Your task to perform on an android device: read, delete, or share a saved page in the chrome app Image 0: 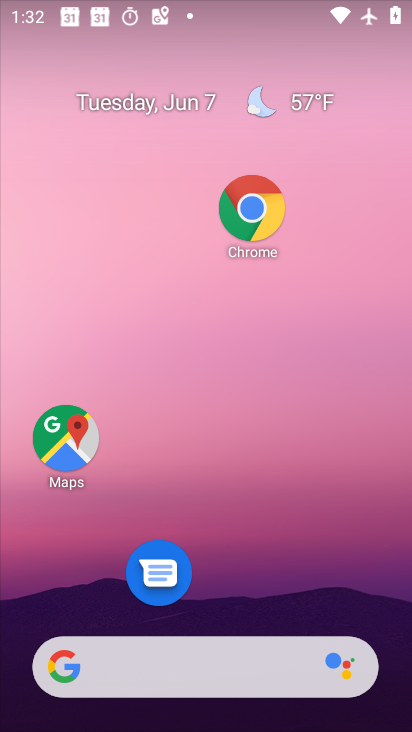
Step 0: click (235, 232)
Your task to perform on an android device: read, delete, or share a saved page in the chrome app Image 1: 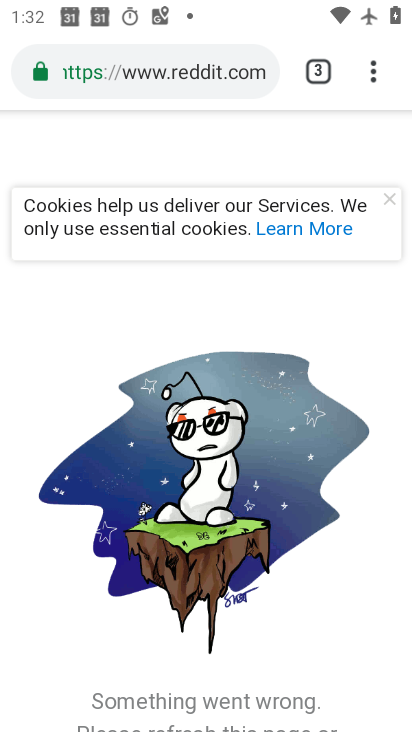
Step 1: click (368, 84)
Your task to perform on an android device: read, delete, or share a saved page in the chrome app Image 2: 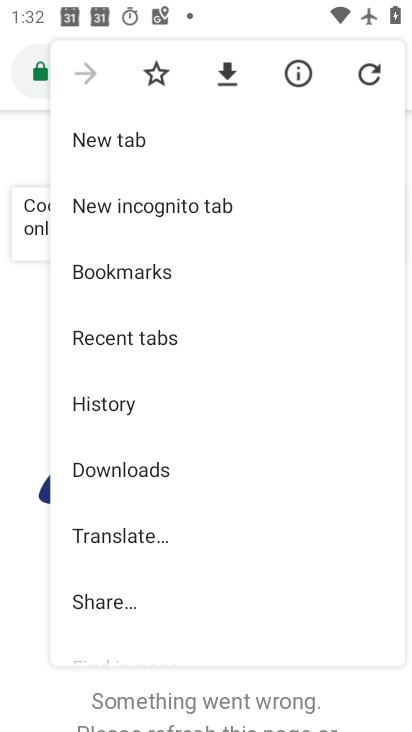
Step 2: click (141, 469)
Your task to perform on an android device: read, delete, or share a saved page in the chrome app Image 3: 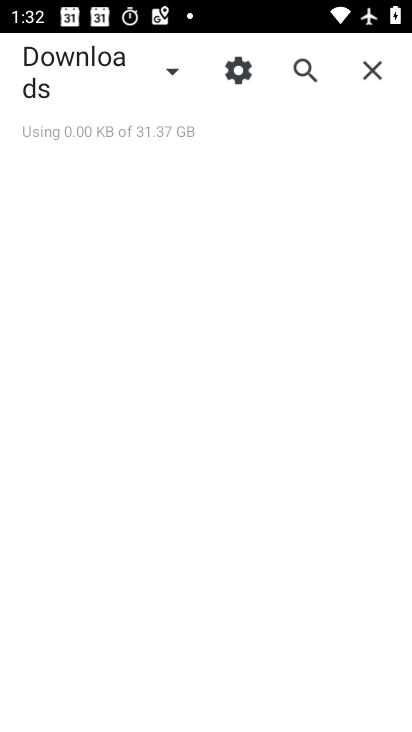
Step 3: click (148, 66)
Your task to perform on an android device: read, delete, or share a saved page in the chrome app Image 4: 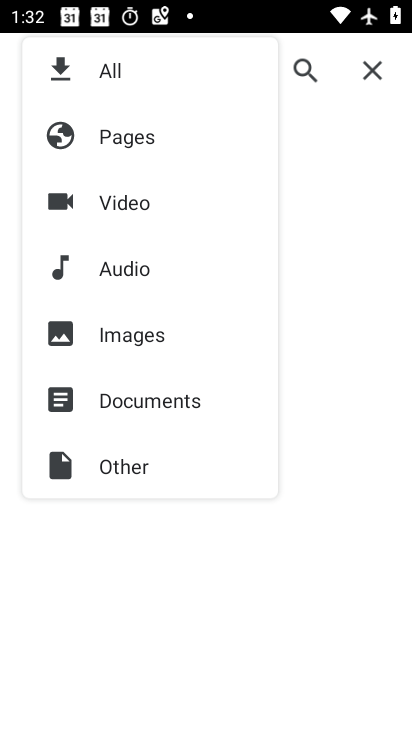
Step 4: click (126, 140)
Your task to perform on an android device: read, delete, or share a saved page in the chrome app Image 5: 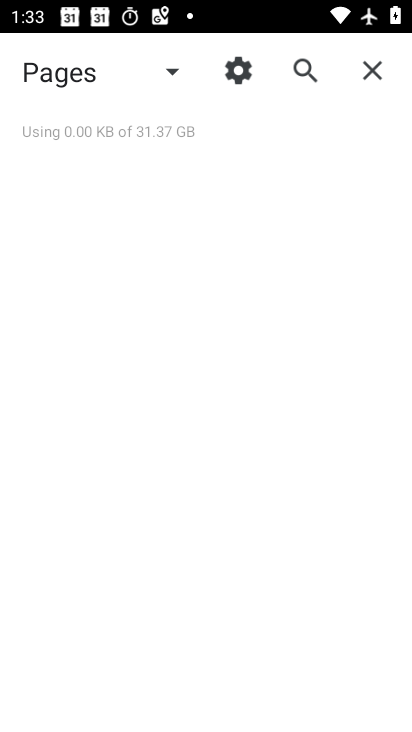
Step 5: task complete